Your task to perform on an android device: turn off sleep mode Image 0: 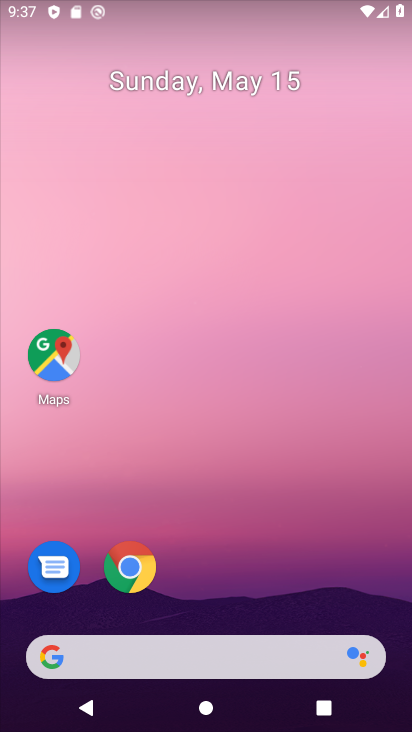
Step 0: drag from (234, 578) to (187, 85)
Your task to perform on an android device: turn off sleep mode Image 1: 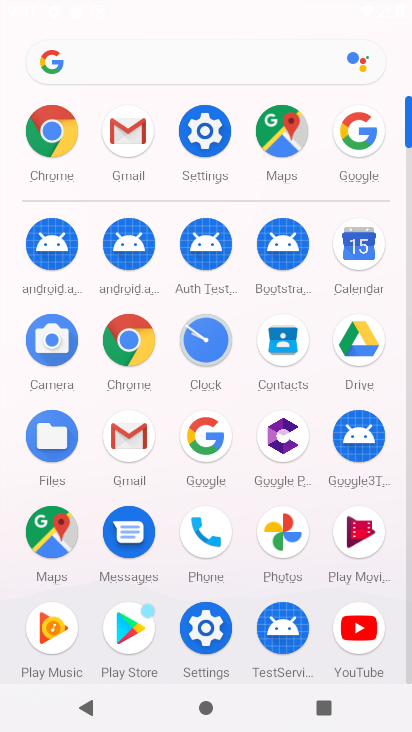
Step 1: click (208, 131)
Your task to perform on an android device: turn off sleep mode Image 2: 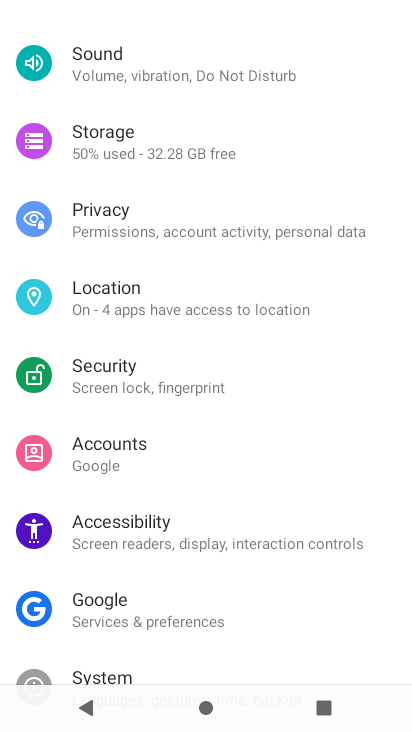
Step 2: drag from (131, 133) to (196, 475)
Your task to perform on an android device: turn off sleep mode Image 3: 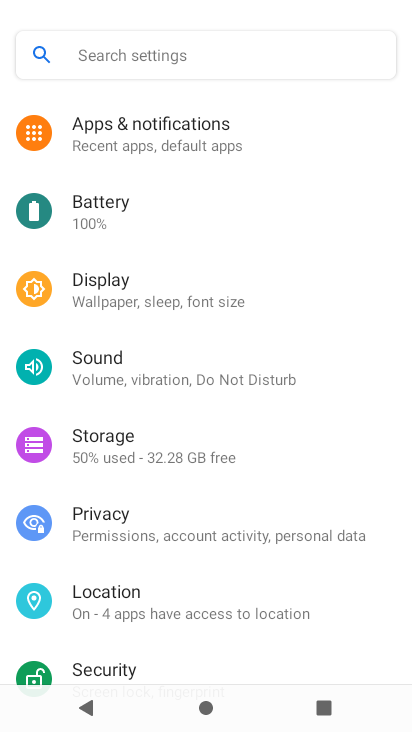
Step 3: click (112, 304)
Your task to perform on an android device: turn off sleep mode Image 4: 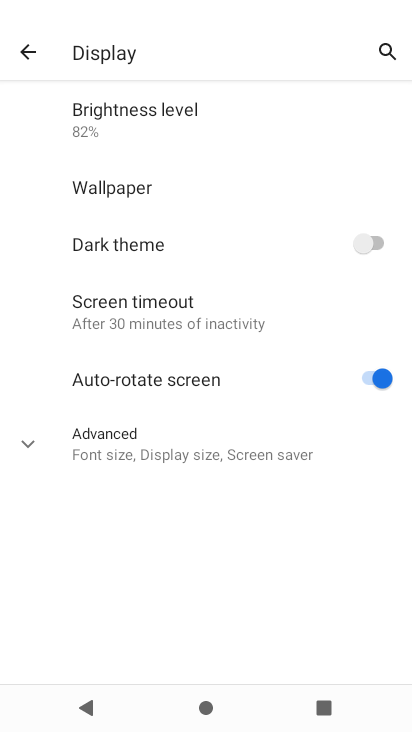
Step 4: click (169, 318)
Your task to perform on an android device: turn off sleep mode Image 5: 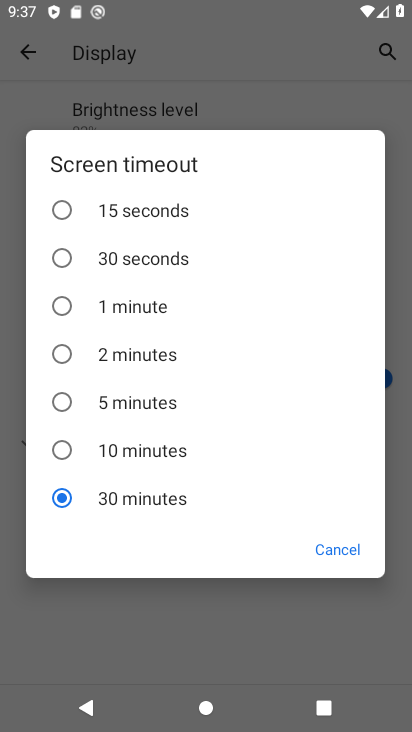
Step 5: task complete